Your task to perform on an android device: turn off notifications in google photos Image 0: 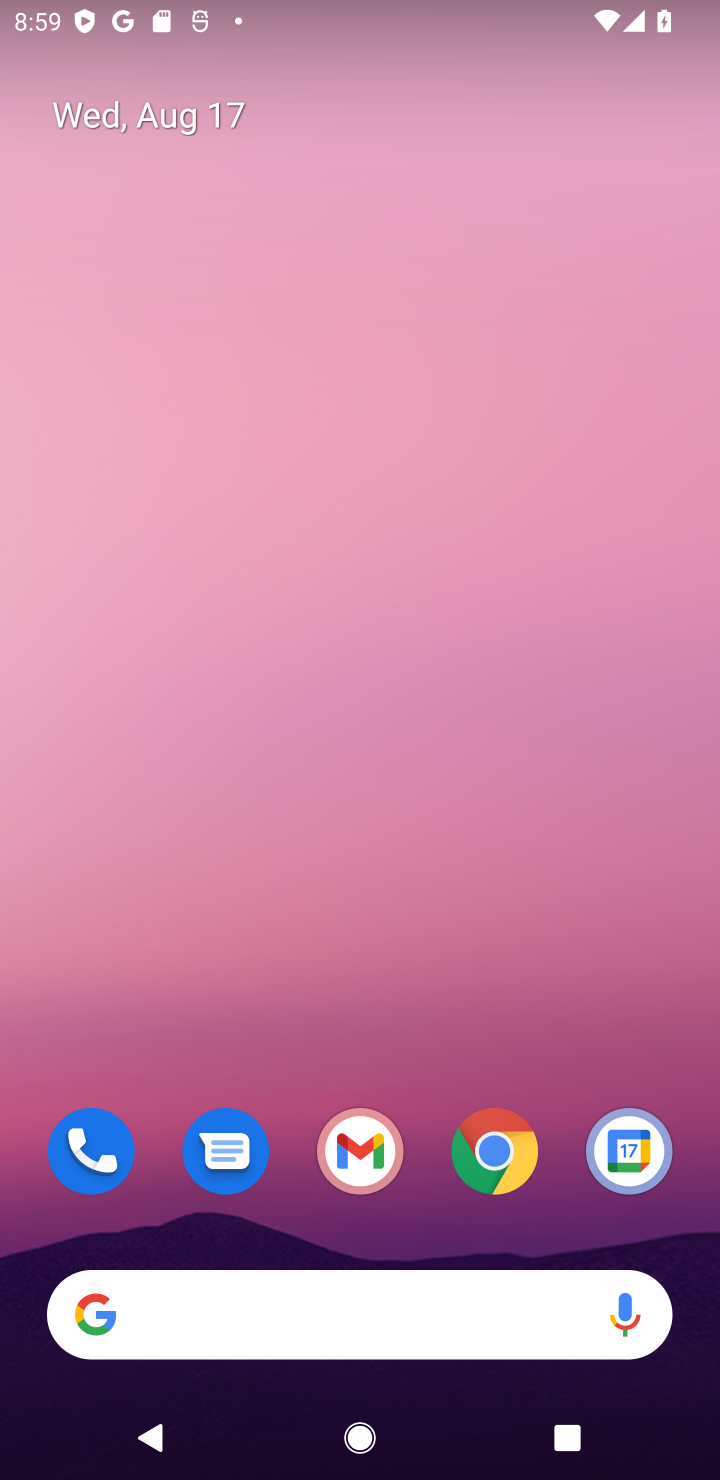
Step 0: drag from (319, 1192) to (435, 481)
Your task to perform on an android device: turn off notifications in google photos Image 1: 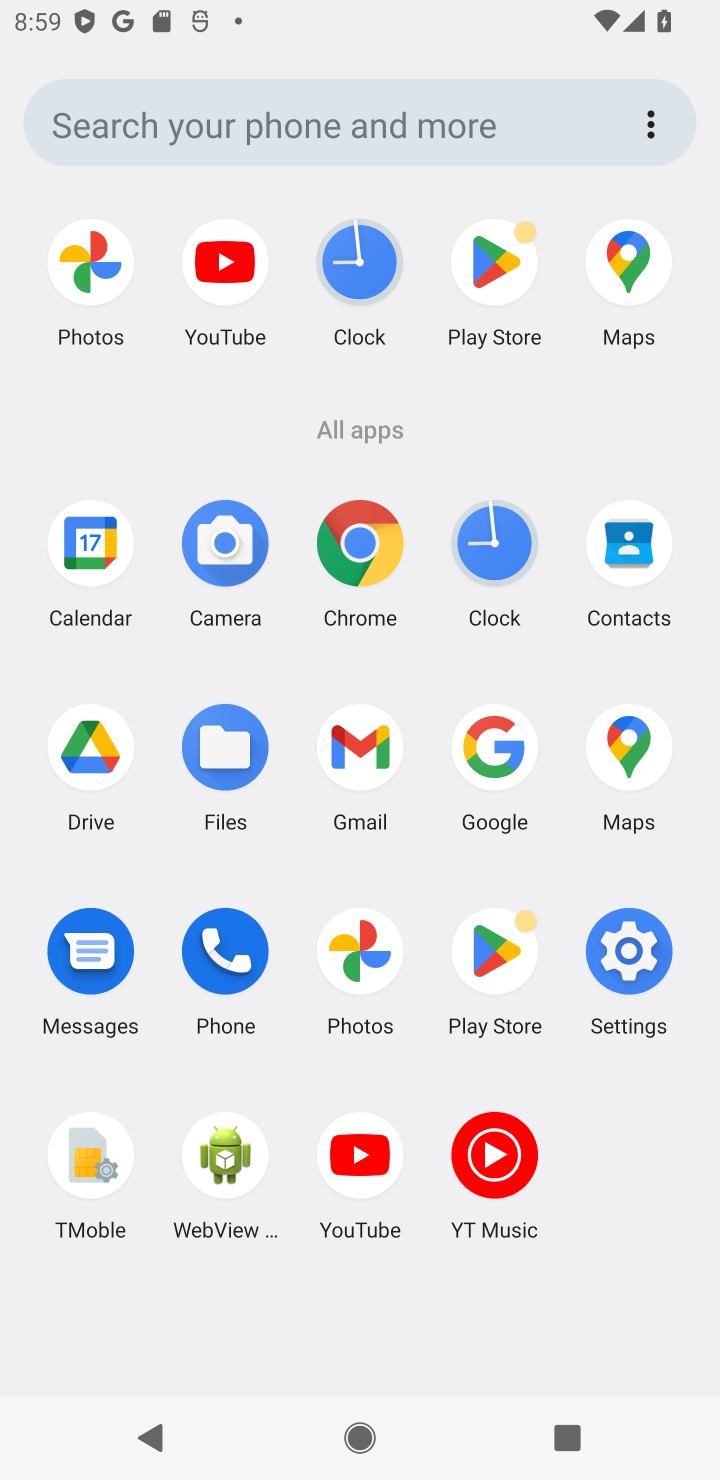
Step 1: click (361, 947)
Your task to perform on an android device: turn off notifications in google photos Image 2: 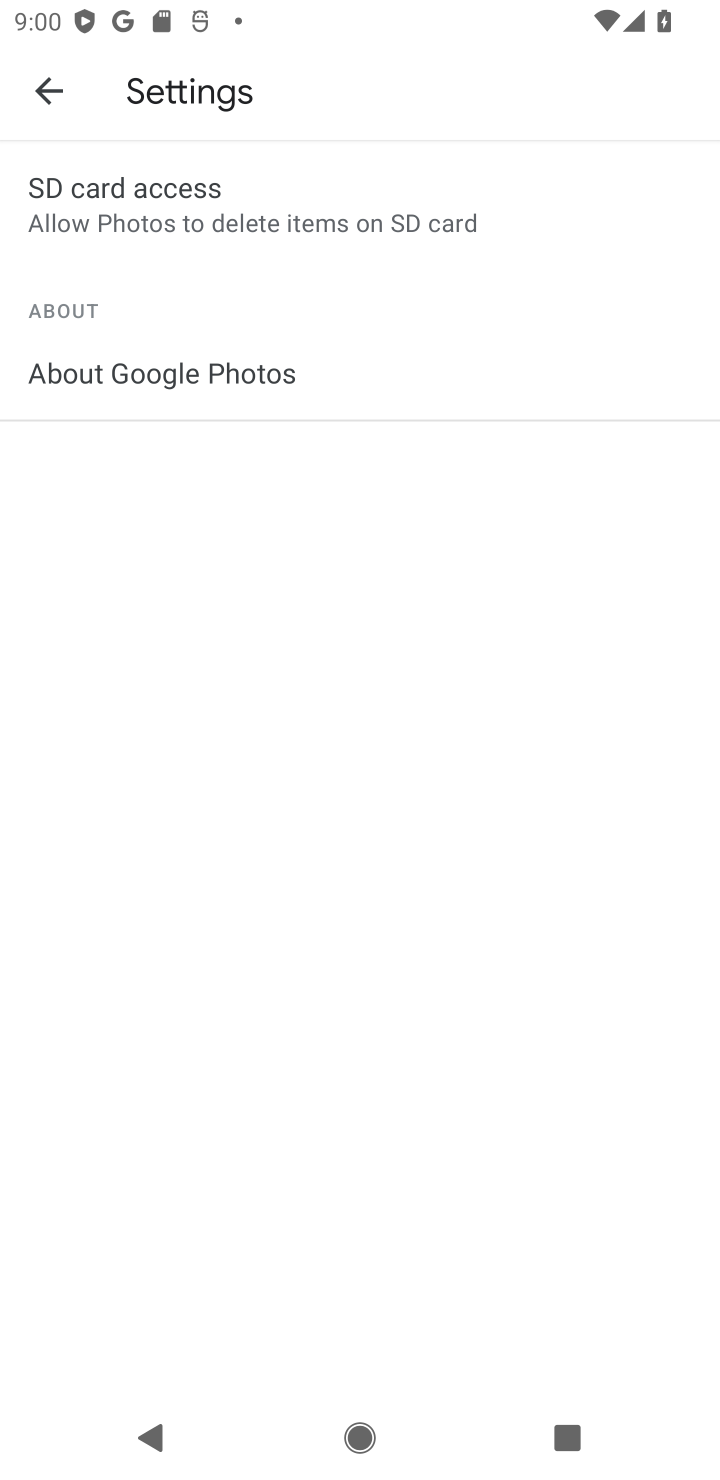
Step 2: click (62, 84)
Your task to perform on an android device: turn off notifications in google photos Image 3: 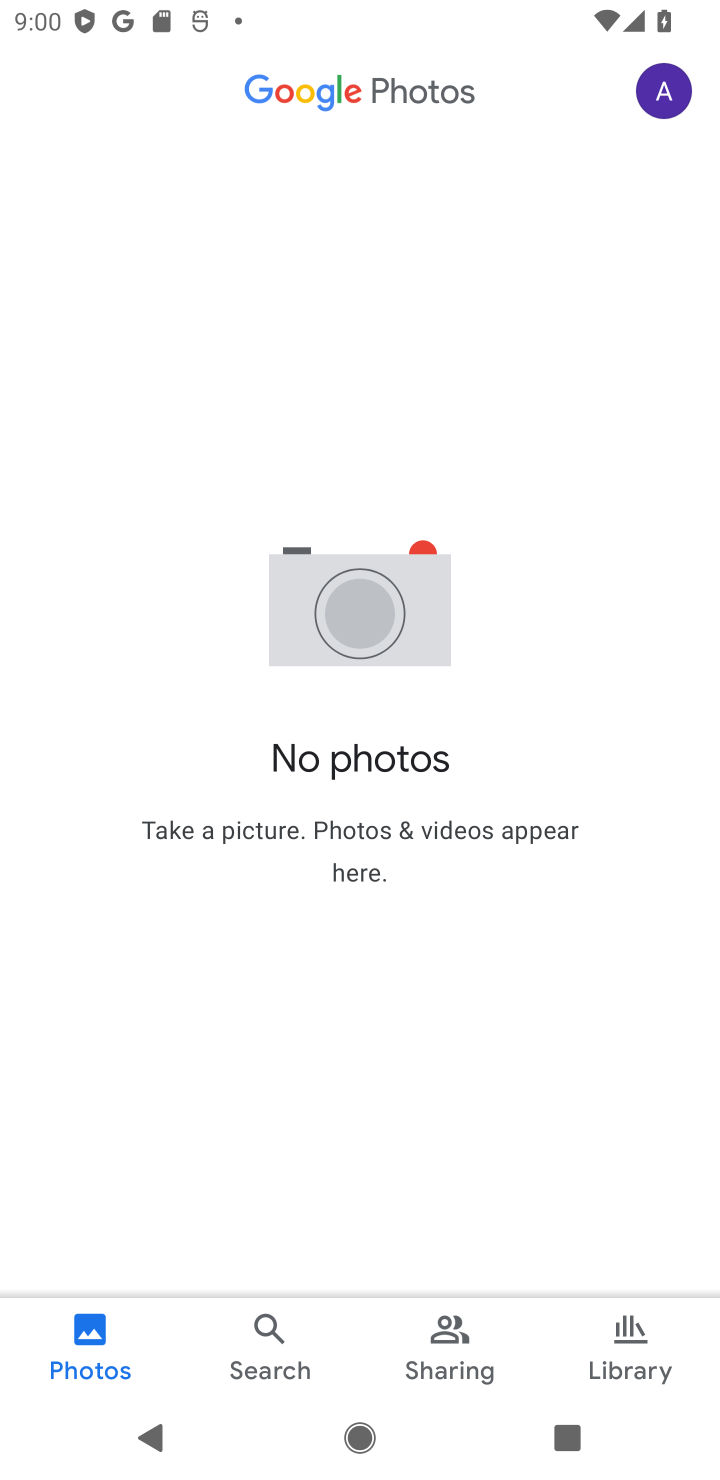
Step 3: click (673, 93)
Your task to perform on an android device: turn off notifications in google photos Image 4: 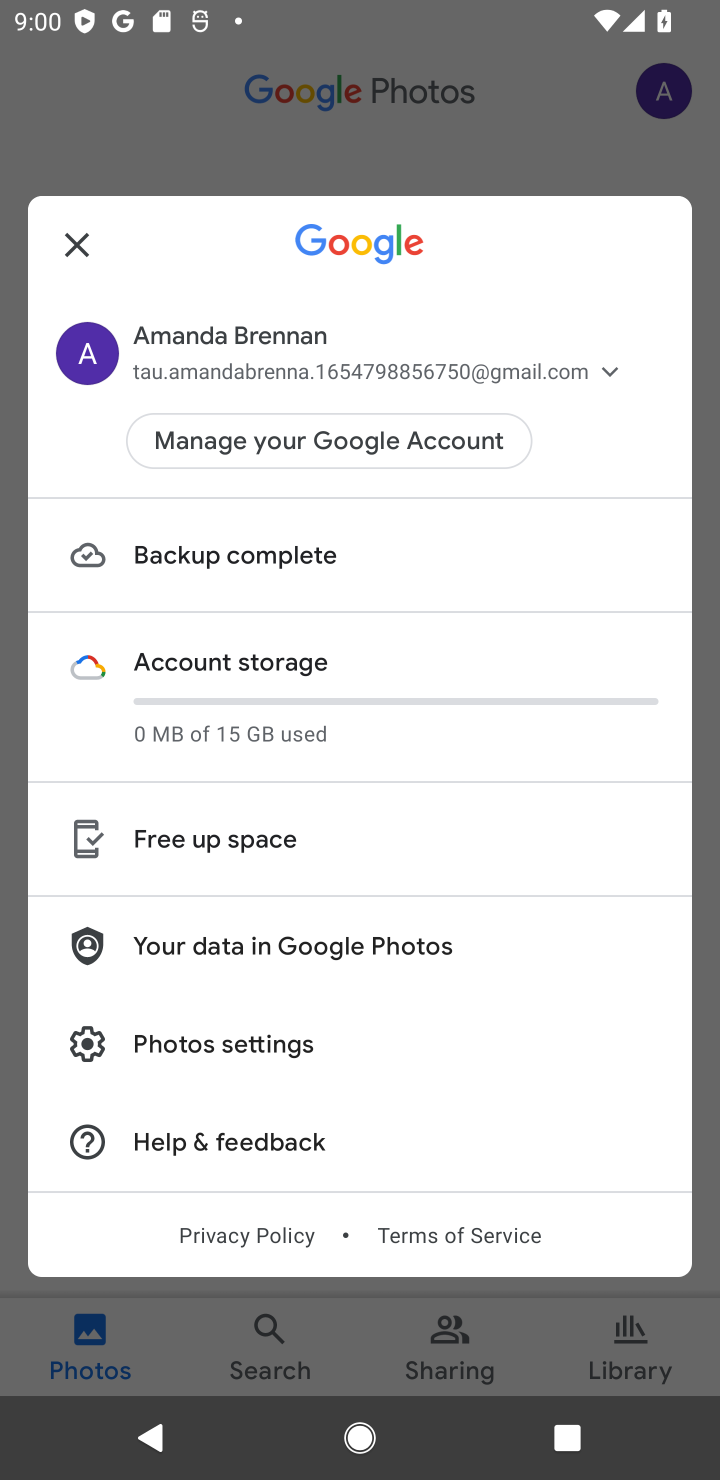
Step 4: click (205, 1042)
Your task to perform on an android device: turn off notifications in google photos Image 5: 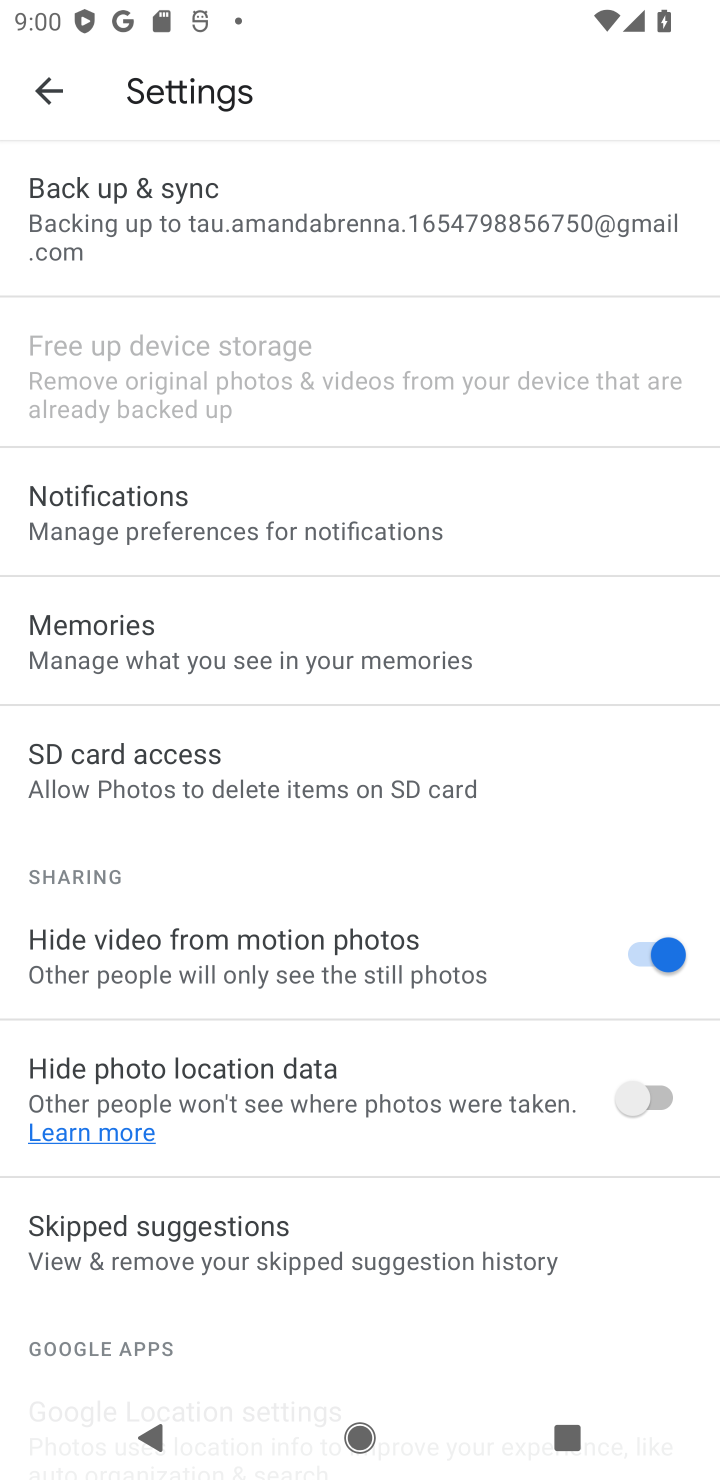
Step 5: click (223, 526)
Your task to perform on an android device: turn off notifications in google photos Image 6: 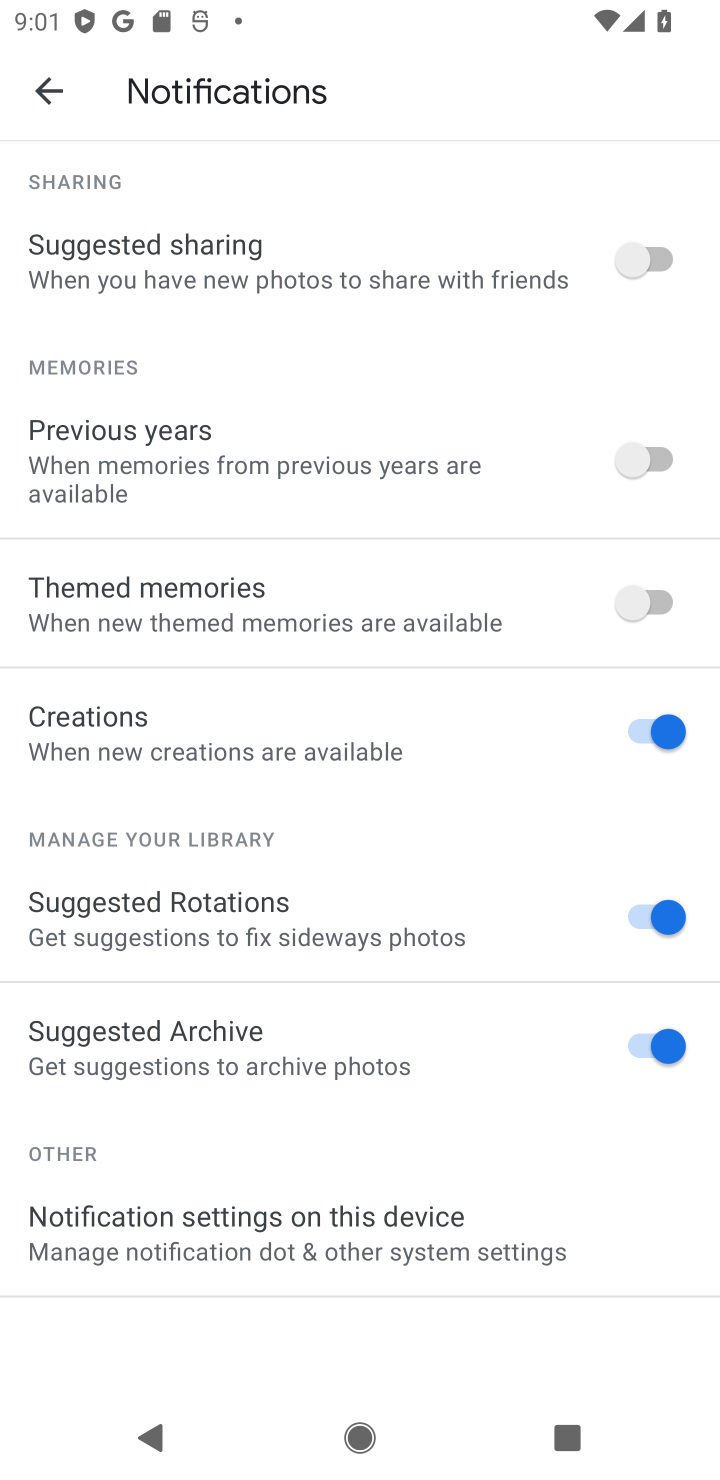
Step 6: click (626, 723)
Your task to perform on an android device: turn off notifications in google photos Image 7: 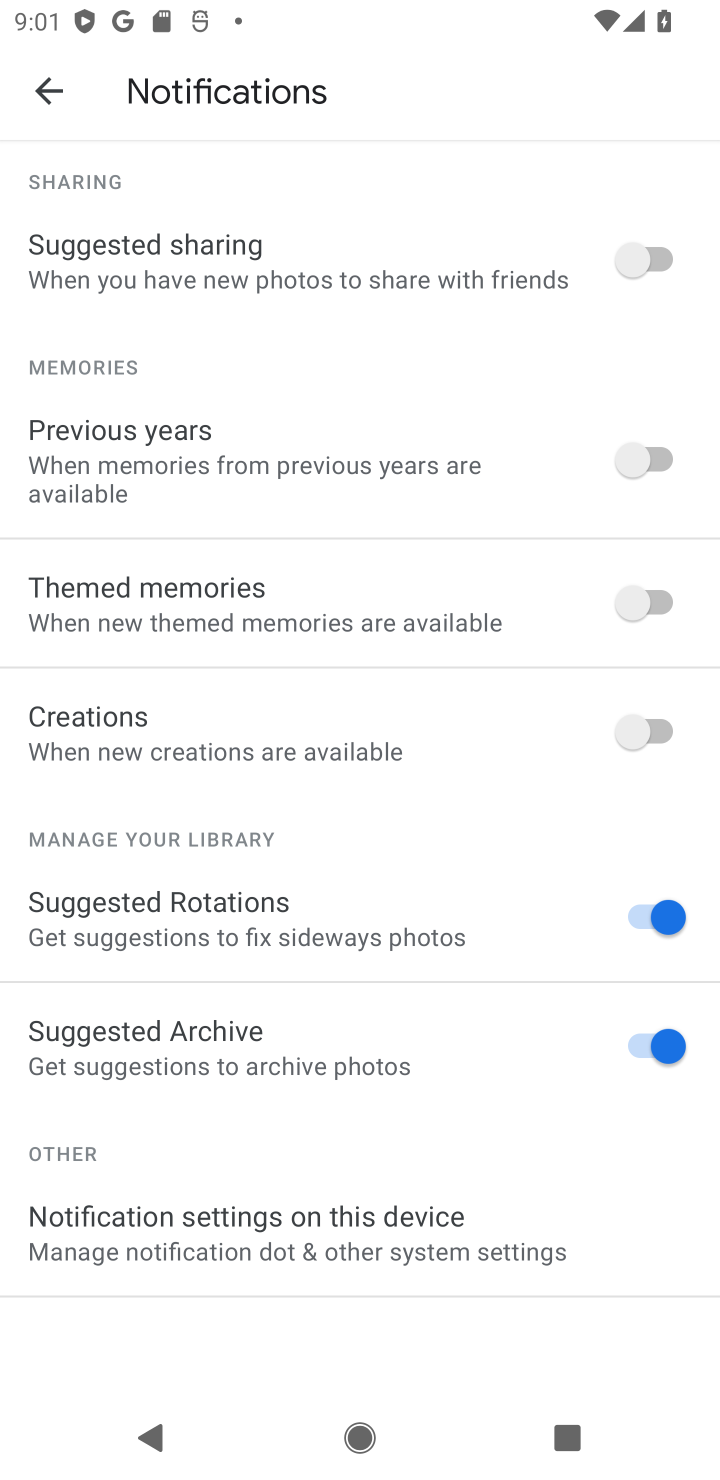
Step 7: click (648, 929)
Your task to perform on an android device: turn off notifications in google photos Image 8: 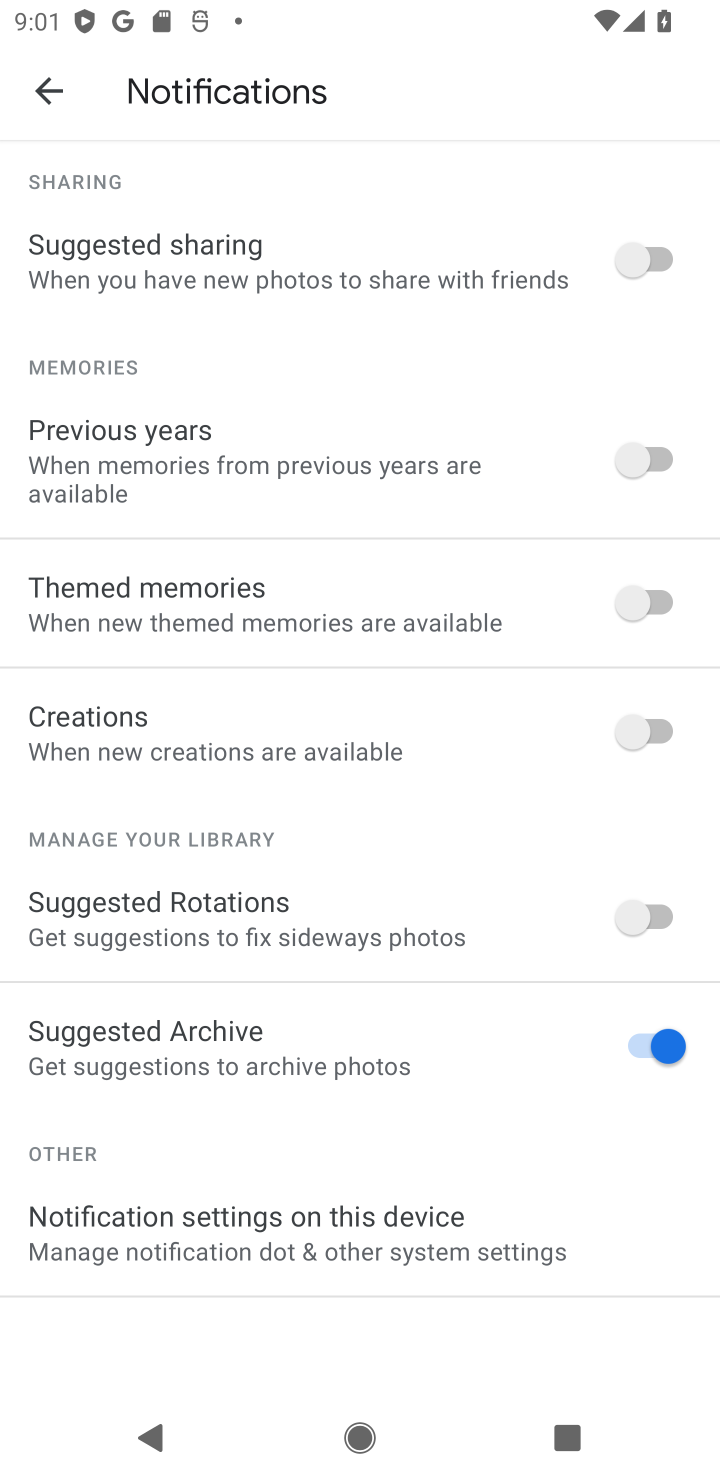
Step 8: click (644, 1049)
Your task to perform on an android device: turn off notifications in google photos Image 9: 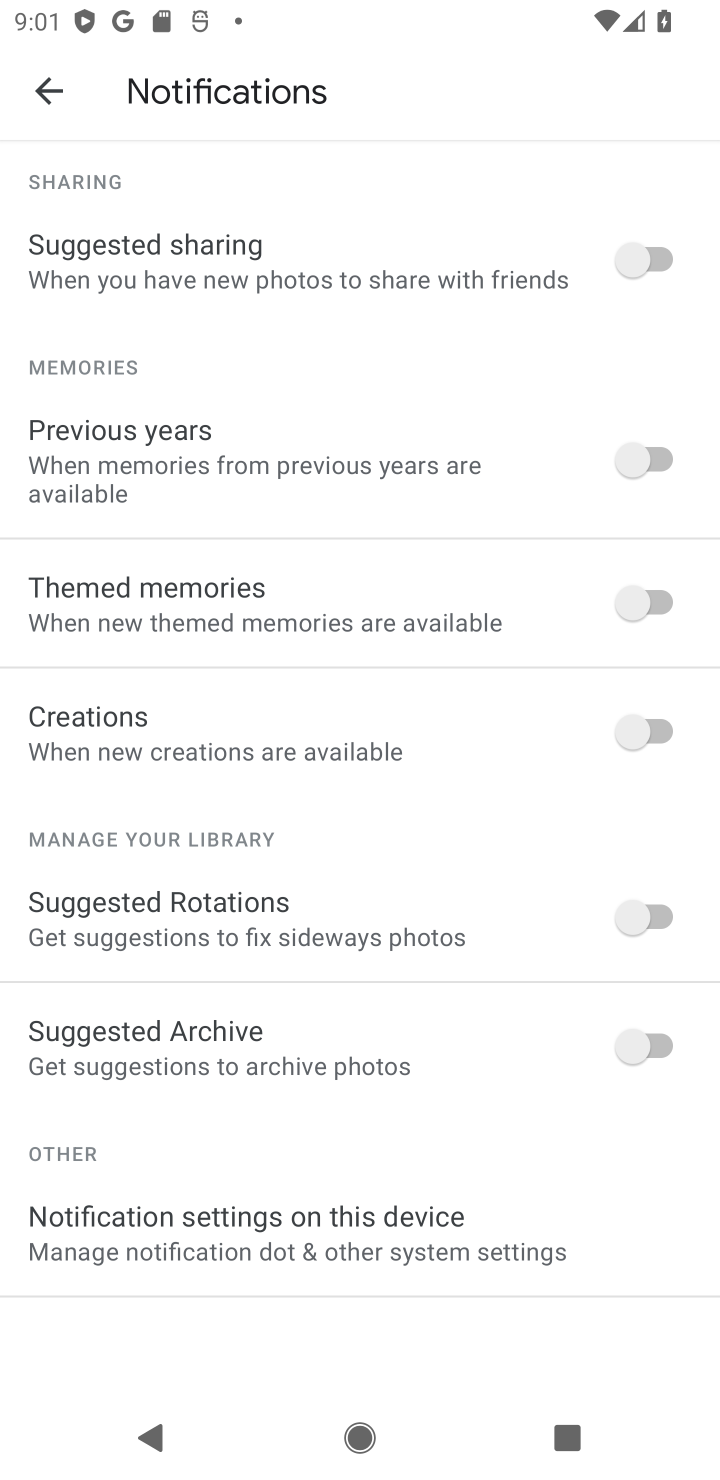
Step 9: task complete